Your task to perform on an android device: What's on my calendar tomorrow? Image 0: 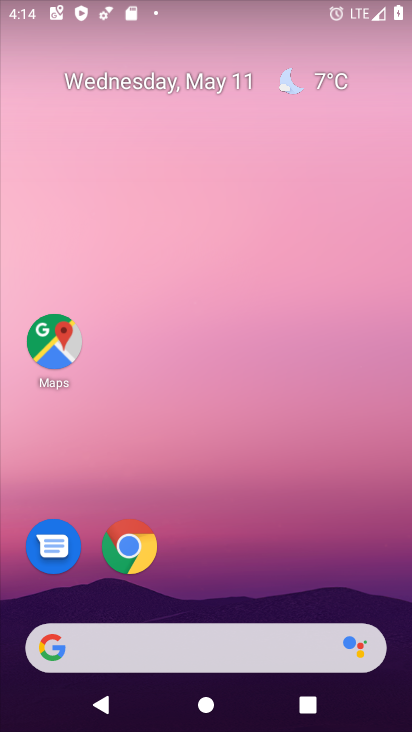
Step 0: drag from (270, 638) to (301, 85)
Your task to perform on an android device: What's on my calendar tomorrow? Image 1: 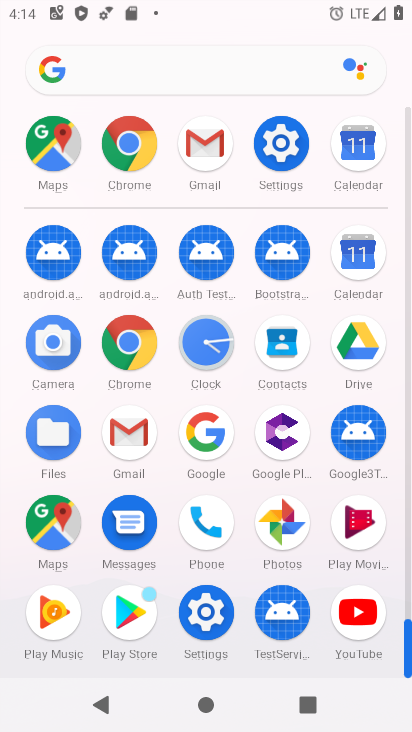
Step 1: click (346, 271)
Your task to perform on an android device: What's on my calendar tomorrow? Image 2: 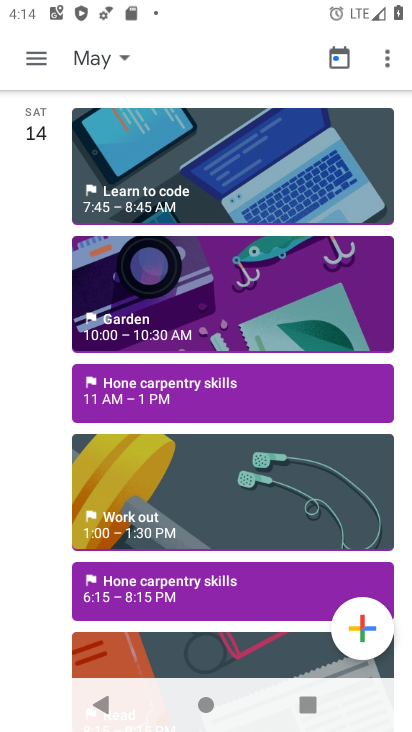
Step 2: click (130, 63)
Your task to perform on an android device: What's on my calendar tomorrow? Image 3: 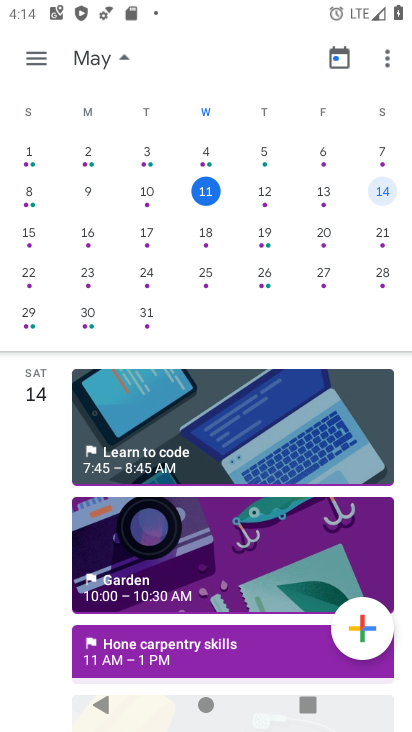
Step 3: click (261, 196)
Your task to perform on an android device: What's on my calendar tomorrow? Image 4: 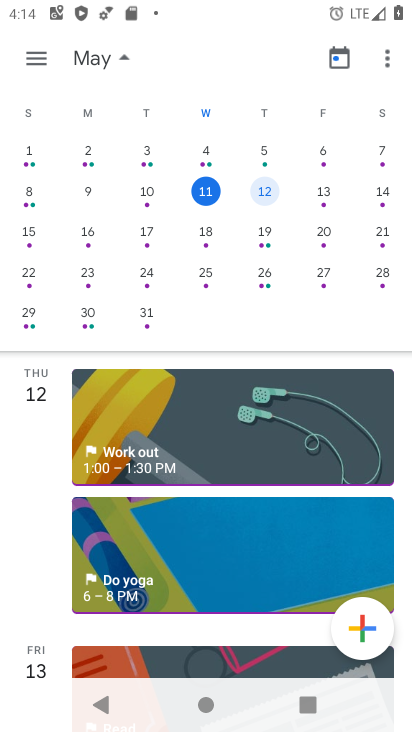
Step 4: task complete